Your task to perform on an android device: Open Reddit.com Image 0: 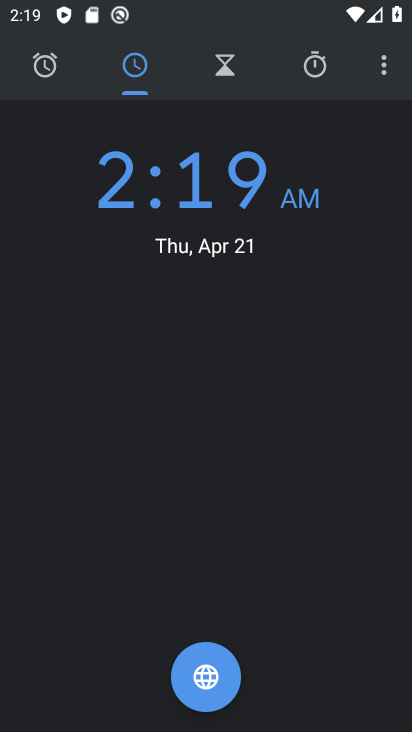
Step 0: press home button
Your task to perform on an android device: Open Reddit.com Image 1: 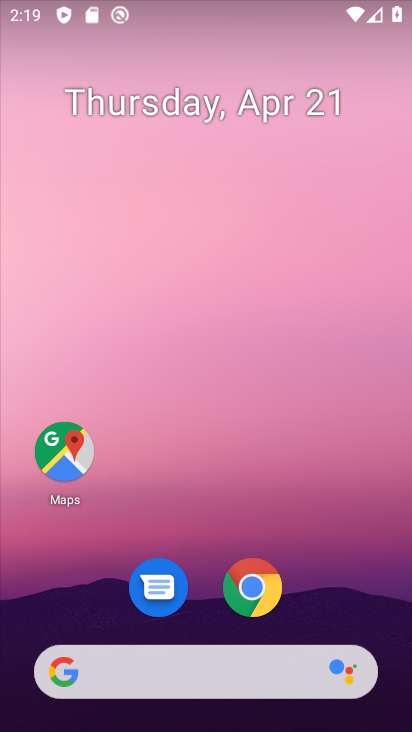
Step 1: drag from (323, 474) to (323, 97)
Your task to perform on an android device: Open Reddit.com Image 2: 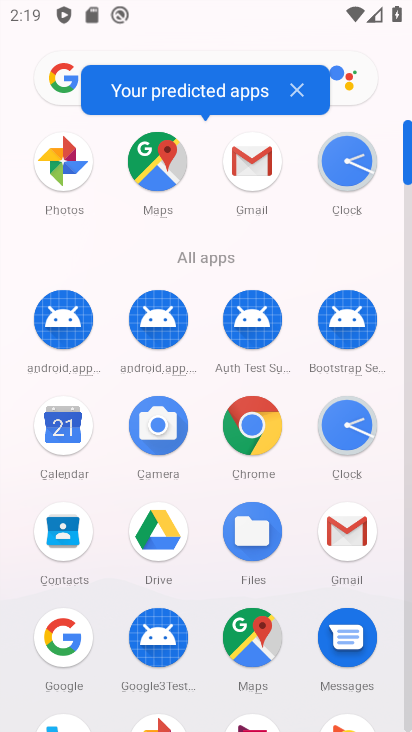
Step 2: click (253, 435)
Your task to perform on an android device: Open Reddit.com Image 3: 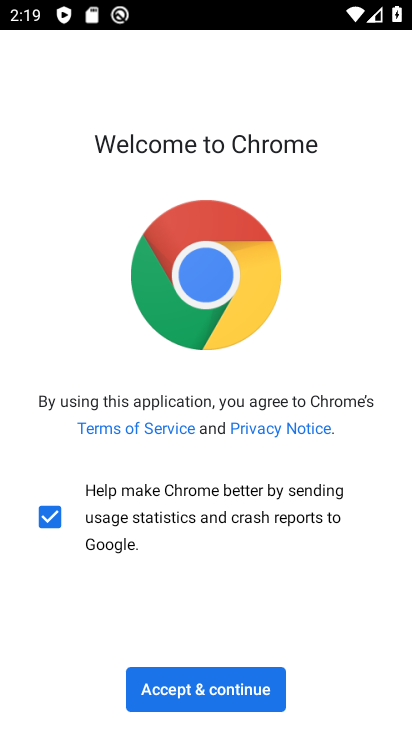
Step 3: click (240, 691)
Your task to perform on an android device: Open Reddit.com Image 4: 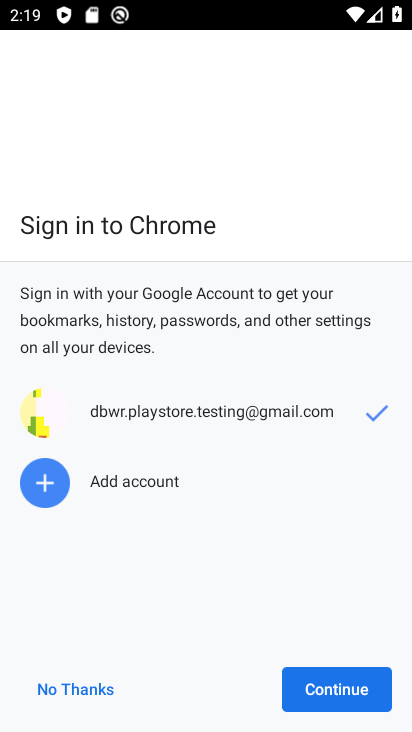
Step 4: click (322, 686)
Your task to perform on an android device: Open Reddit.com Image 5: 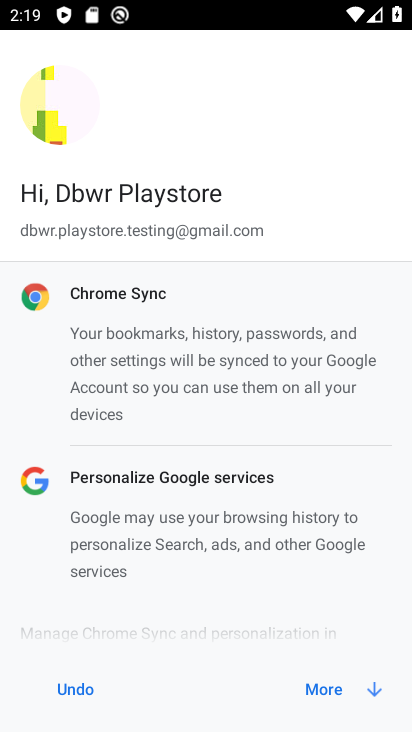
Step 5: click (329, 689)
Your task to perform on an android device: Open Reddit.com Image 6: 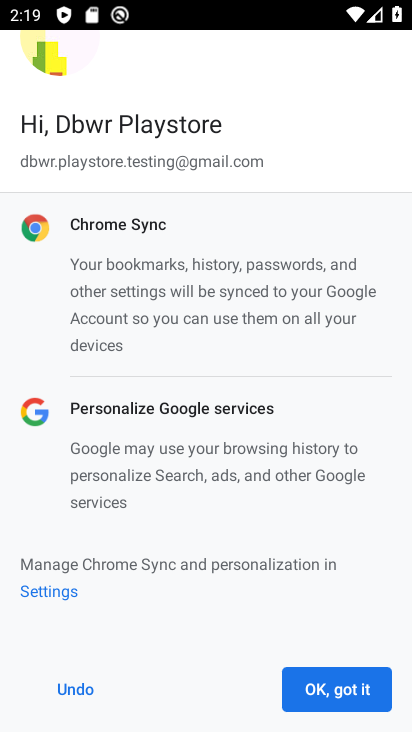
Step 6: click (338, 683)
Your task to perform on an android device: Open Reddit.com Image 7: 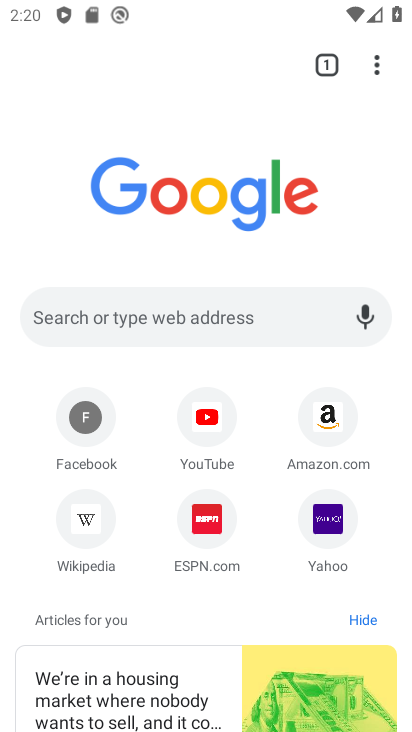
Step 7: click (219, 318)
Your task to perform on an android device: Open Reddit.com Image 8: 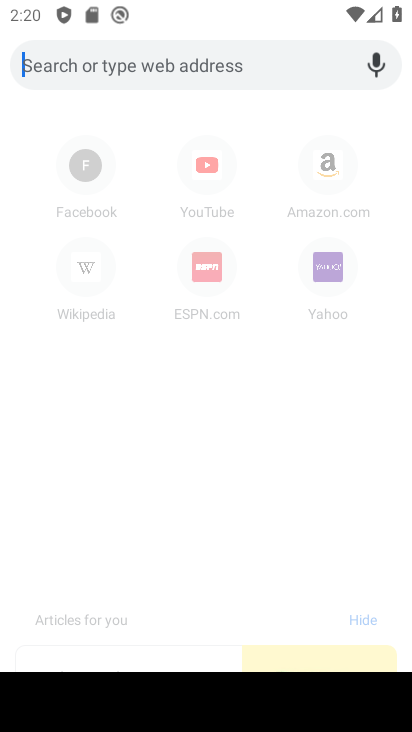
Step 8: type "reddit.com"
Your task to perform on an android device: Open Reddit.com Image 9: 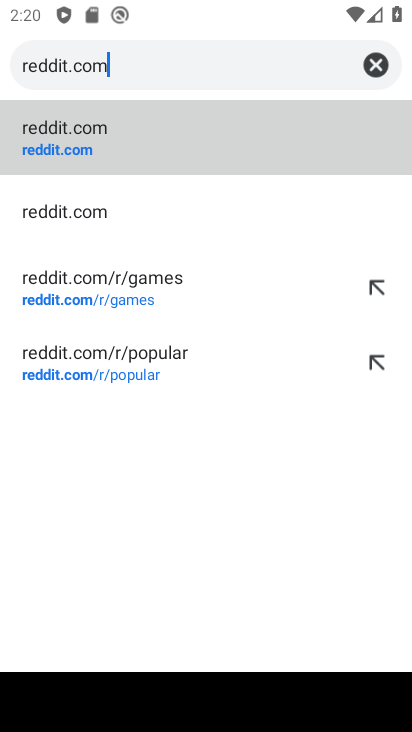
Step 9: click (143, 218)
Your task to perform on an android device: Open Reddit.com Image 10: 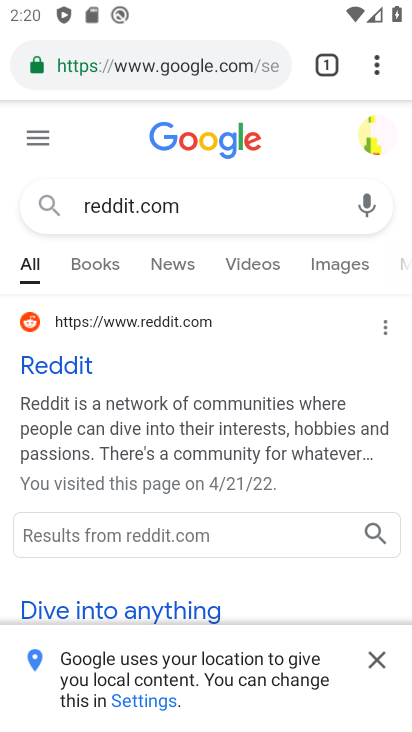
Step 10: task complete